Your task to perform on an android device: Open sound settings Image 0: 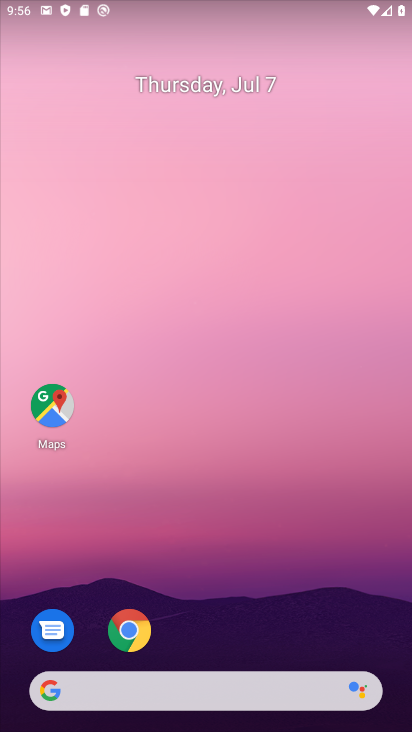
Step 0: drag from (35, 690) to (389, 15)
Your task to perform on an android device: Open sound settings Image 1: 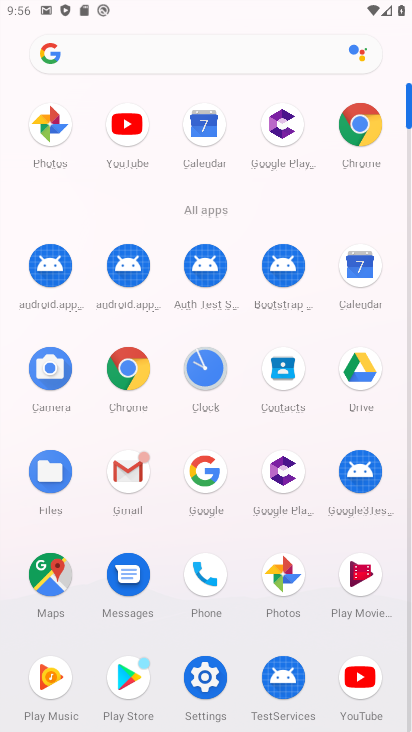
Step 1: click (208, 666)
Your task to perform on an android device: Open sound settings Image 2: 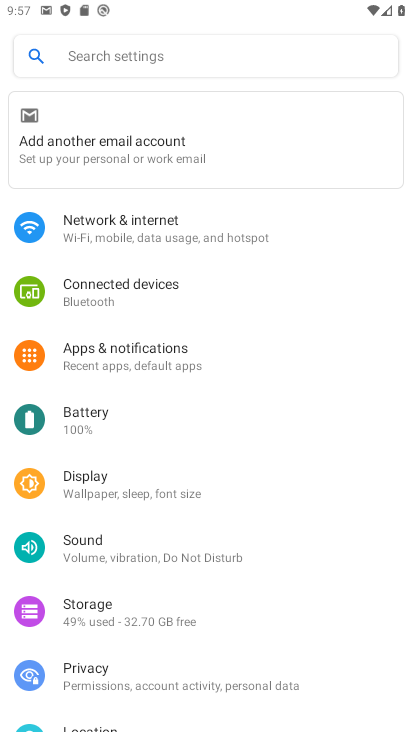
Step 2: click (69, 523)
Your task to perform on an android device: Open sound settings Image 3: 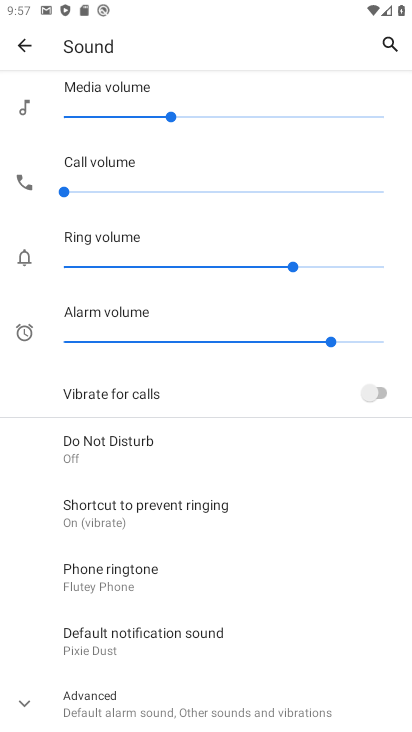
Step 3: task complete